Your task to perform on an android device: change alarm snooze length Image 0: 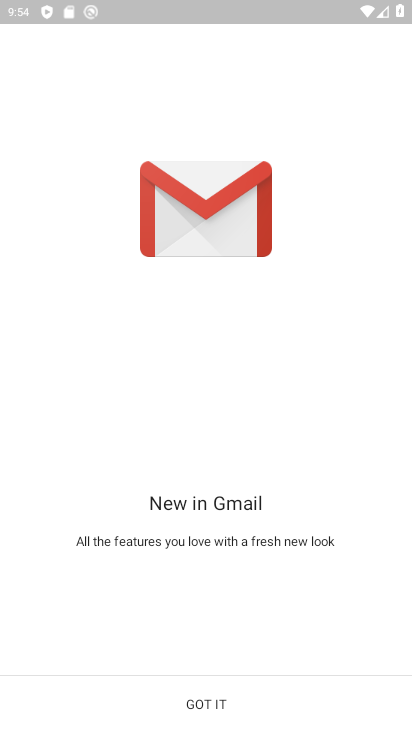
Step 0: press home button
Your task to perform on an android device: change alarm snooze length Image 1: 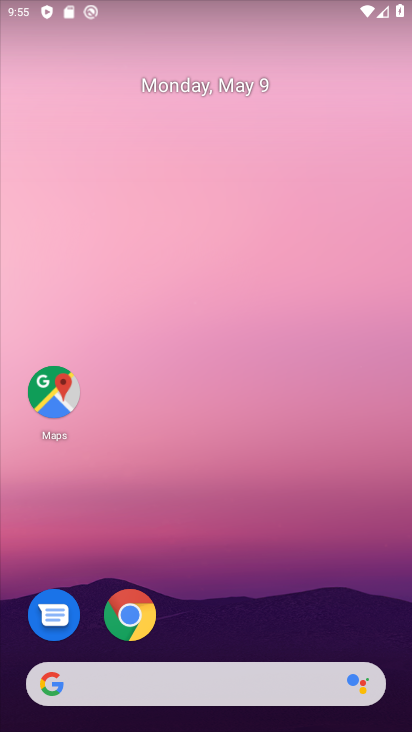
Step 1: press home button
Your task to perform on an android device: change alarm snooze length Image 2: 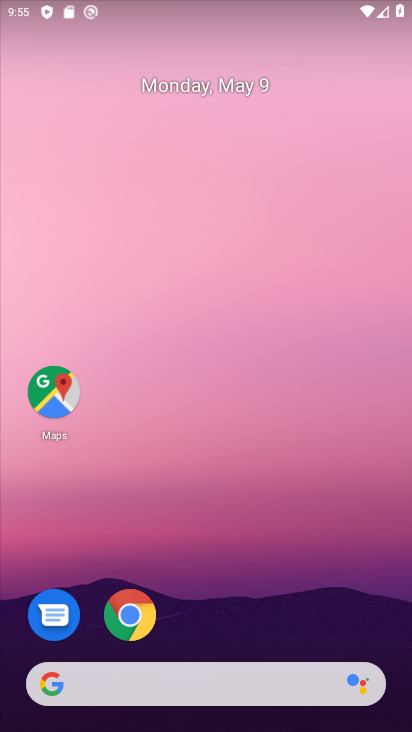
Step 2: drag from (184, 664) to (215, 241)
Your task to perform on an android device: change alarm snooze length Image 3: 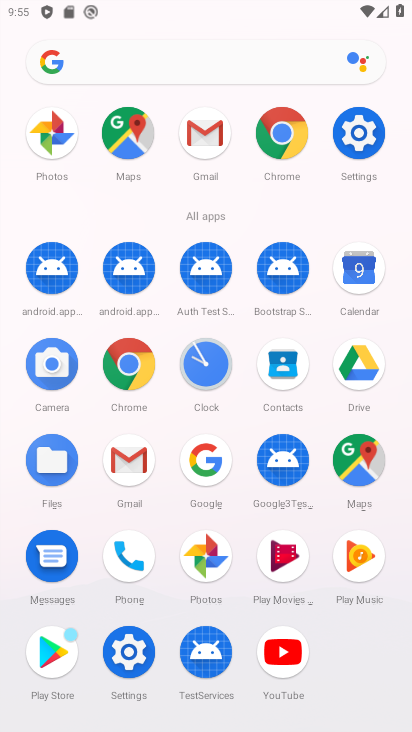
Step 3: click (215, 362)
Your task to perform on an android device: change alarm snooze length Image 4: 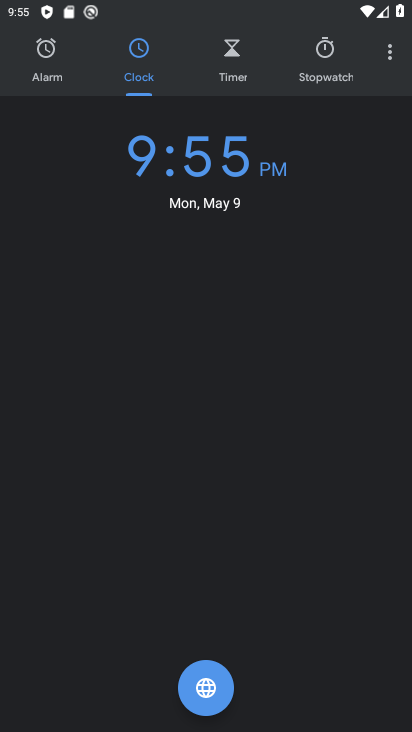
Step 4: click (395, 55)
Your task to perform on an android device: change alarm snooze length Image 5: 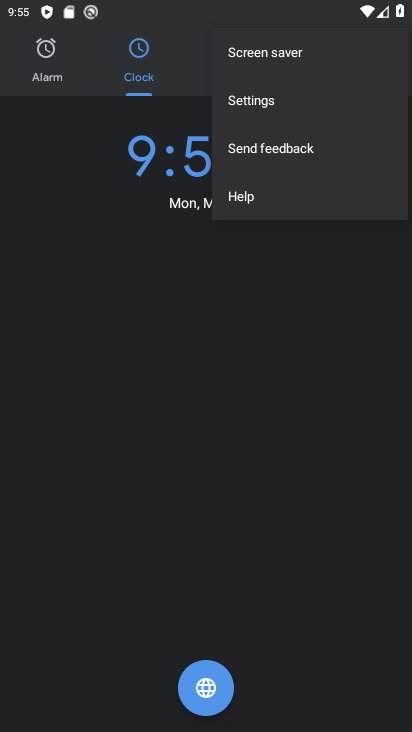
Step 5: click (319, 99)
Your task to perform on an android device: change alarm snooze length Image 6: 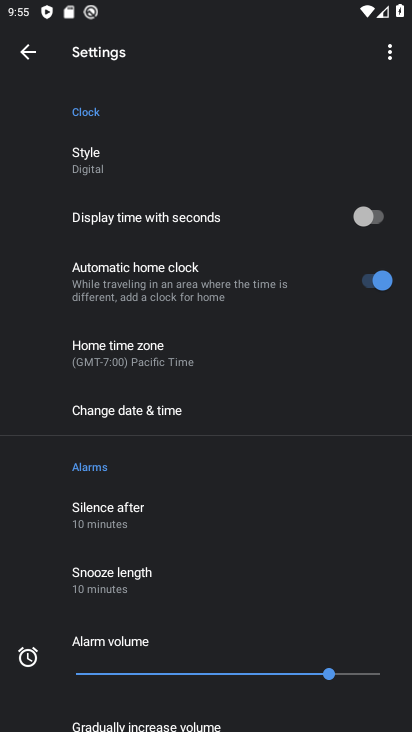
Step 6: click (146, 575)
Your task to perform on an android device: change alarm snooze length Image 7: 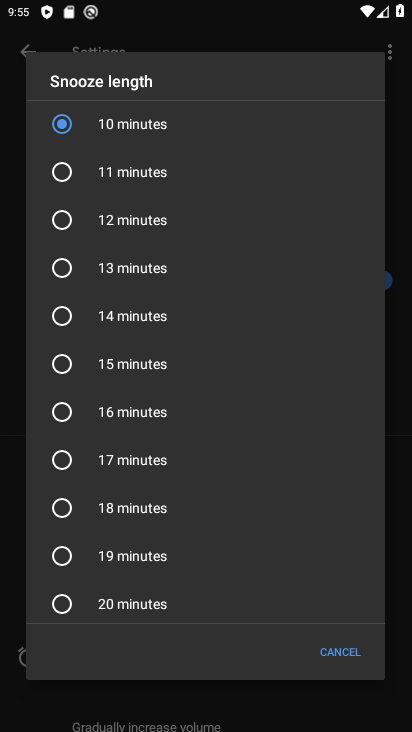
Step 7: click (110, 180)
Your task to perform on an android device: change alarm snooze length Image 8: 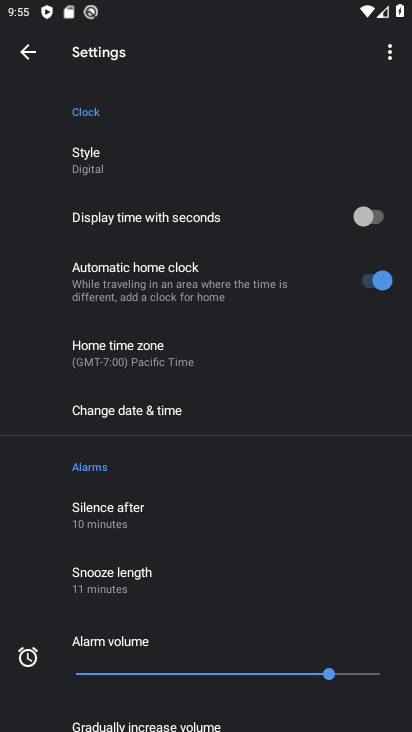
Step 8: task complete